Your task to perform on an android device: toggle airplane mode Image 0: 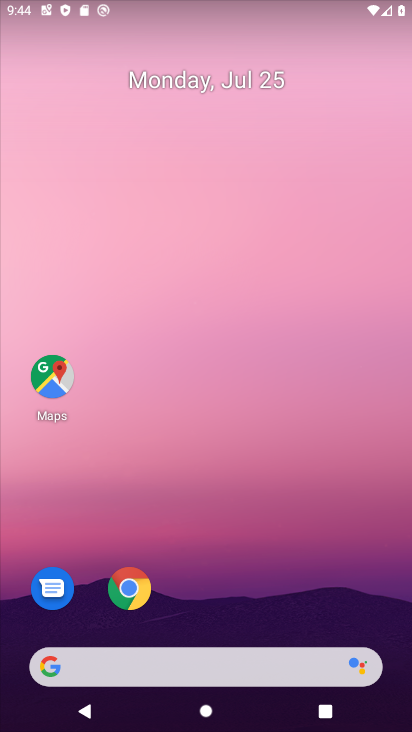
Step 0: drag from (305, 647) to (332, 12)
Your task to perform on an android device: toggle airplane mode Image 1: 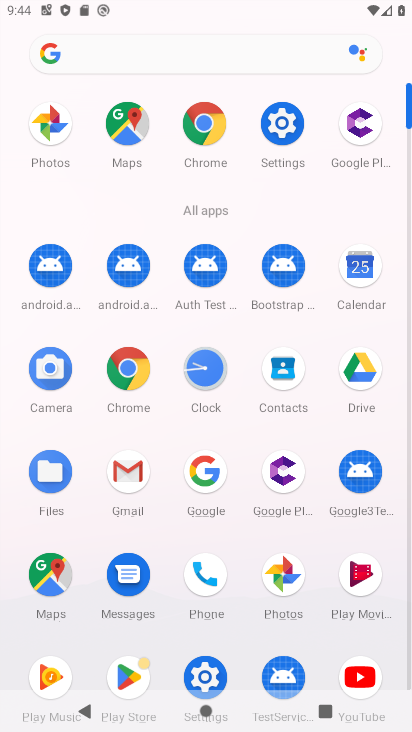
Step 1: click (269, 120)
Your task to perform on an android device: toggle airplane mode Image 2: 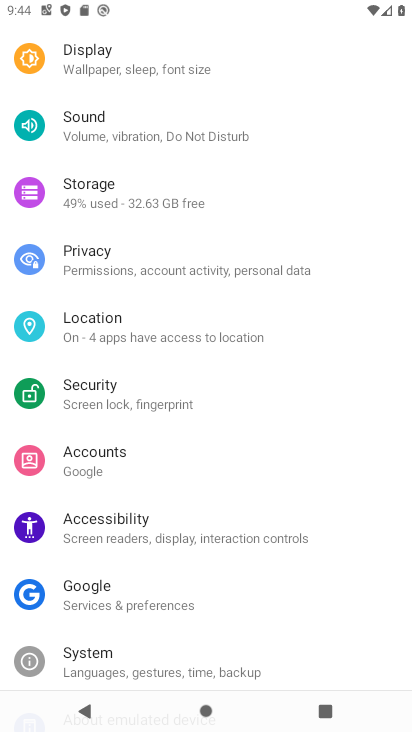
Step 2: drag from (210, 115) to (269, 577)
Your task to perform on an android device: toggle airplane mode Image 3: 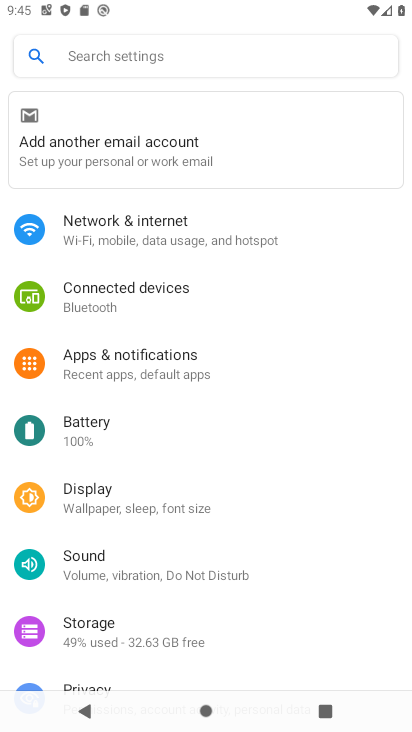
Step 3: click (215, 218)
Your task to perform on an android device: toggle airplane mode Image 4: 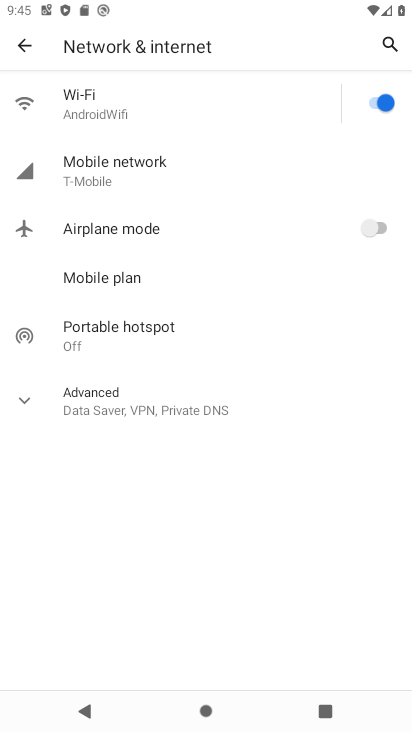
Step 4: click (380, 226)
Your task to perform on an android device: toggle airplane mode Image 5: 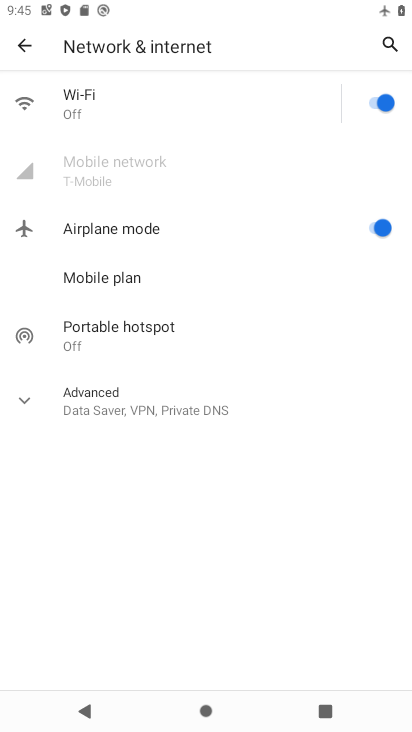
Step 5: task complete